Your task to perform on an android device: change your default location settings in chrome Image 0: 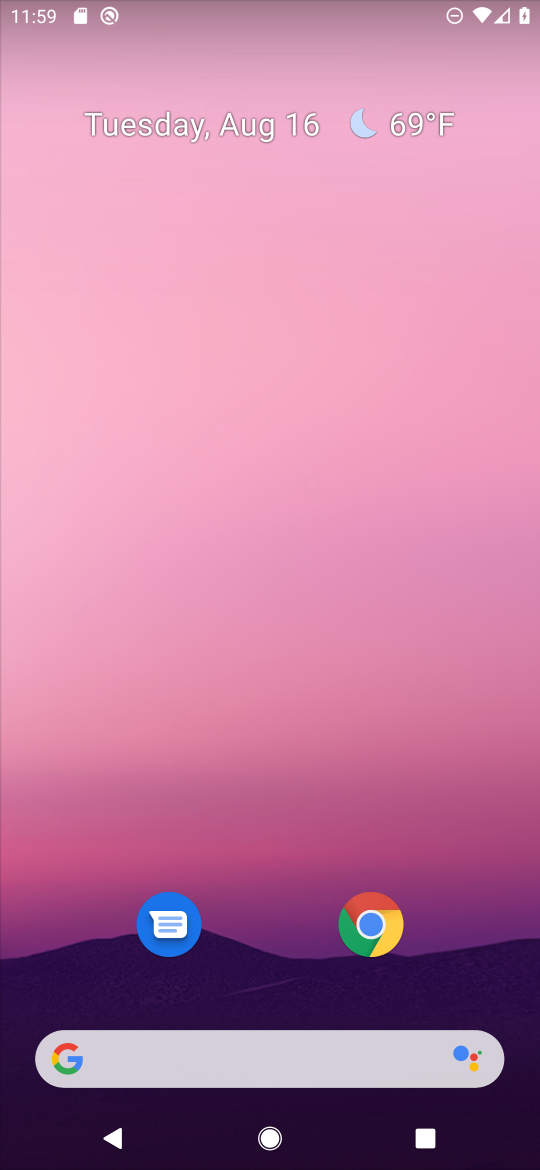
Step 0: click (391, 913)
Your task to perform on an android device: change your default location settings in chrome Image 1: 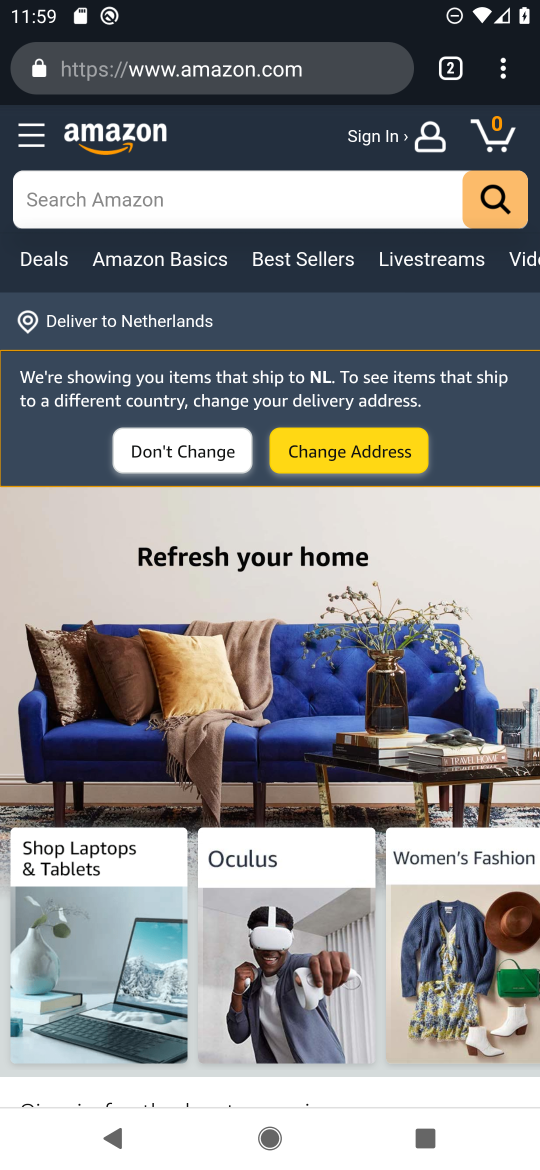
Step 1: click (512, 76)
Your task to perform on an android device: change your default location settings in chrome Image 2: 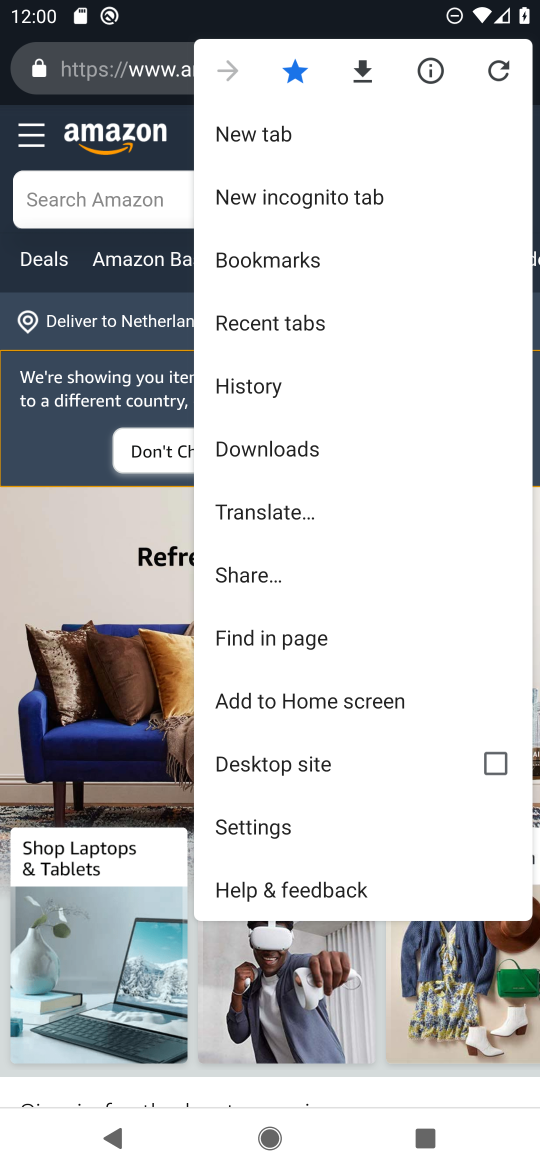
Step 2: click (364, 832)
Your task to perform on an android device: change your default location settings in chrome Image 3: 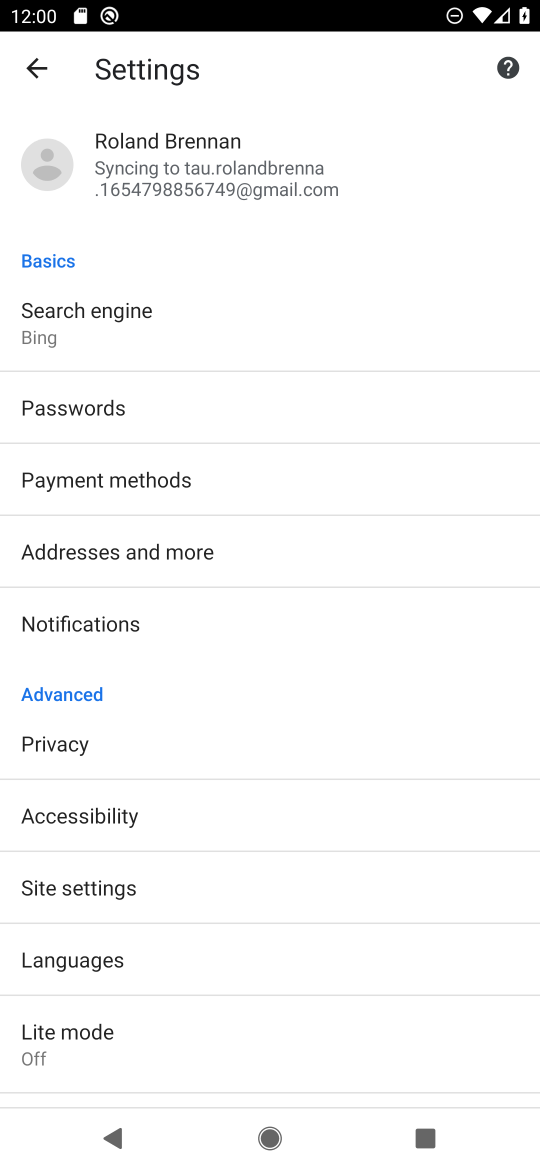
Step 3: drag from (136, 1101) to (214, 447)
Your task to perform on an android device: change your default location settings in chrome Image 4: 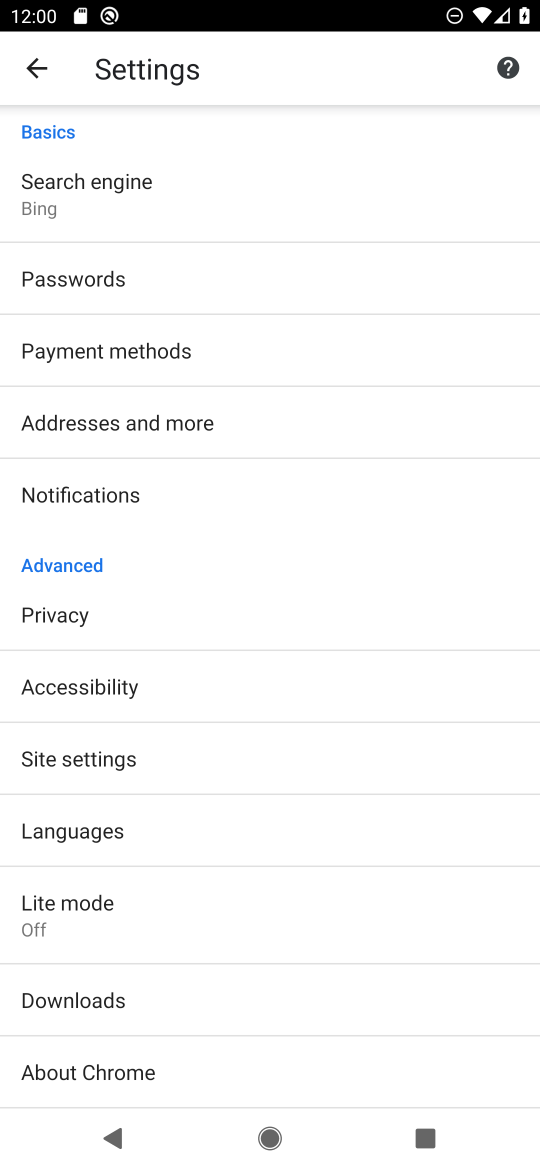
Step 4: drag from (257, 1068) to (273, 523)
Your task to perform on an android device: change your default location settings in chrome Image 5: 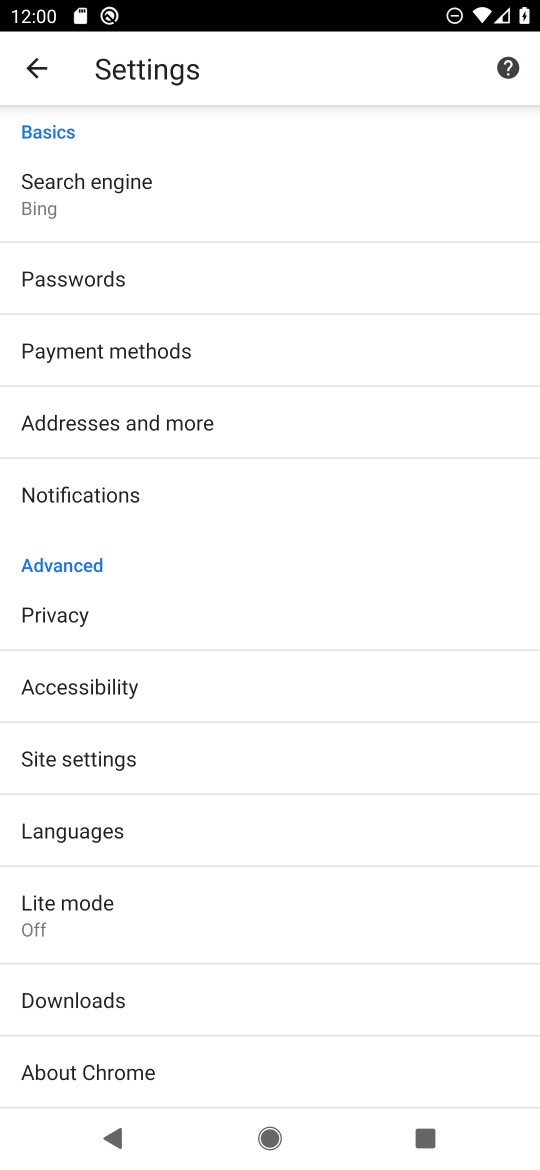
Step 5: click (177, 735)
Your task to perform on an android device: change your default location settings in chrome Image 6: 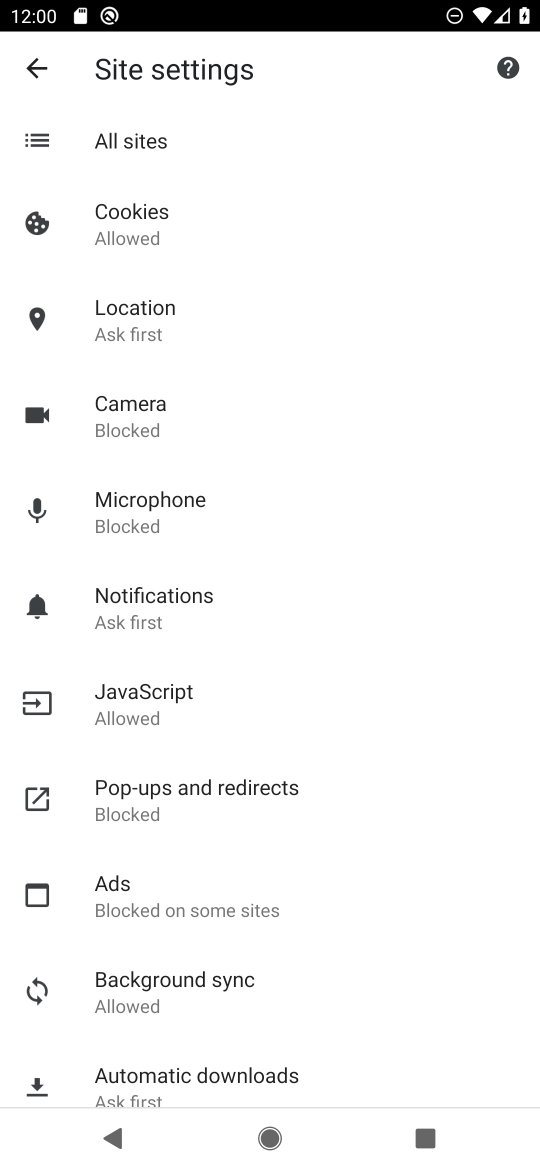
Step 6: click (203, 344)
Your task to perform on an android device: change your default location settings in chrome Image 7: 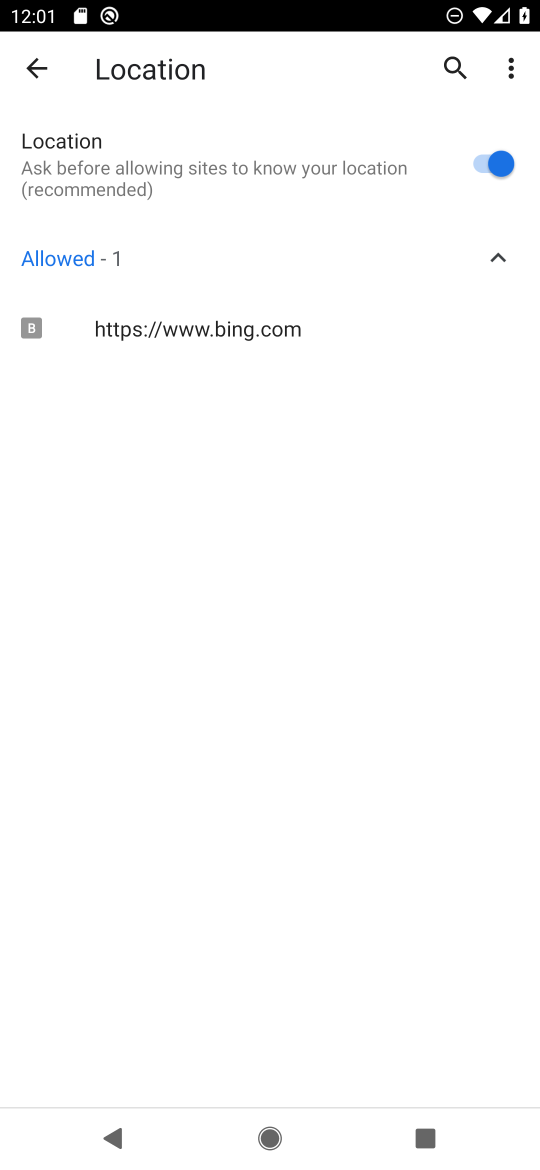
Step 7: click (483, 156)
Your task to perform on an android device: change your default location settings in chrome Image 8: 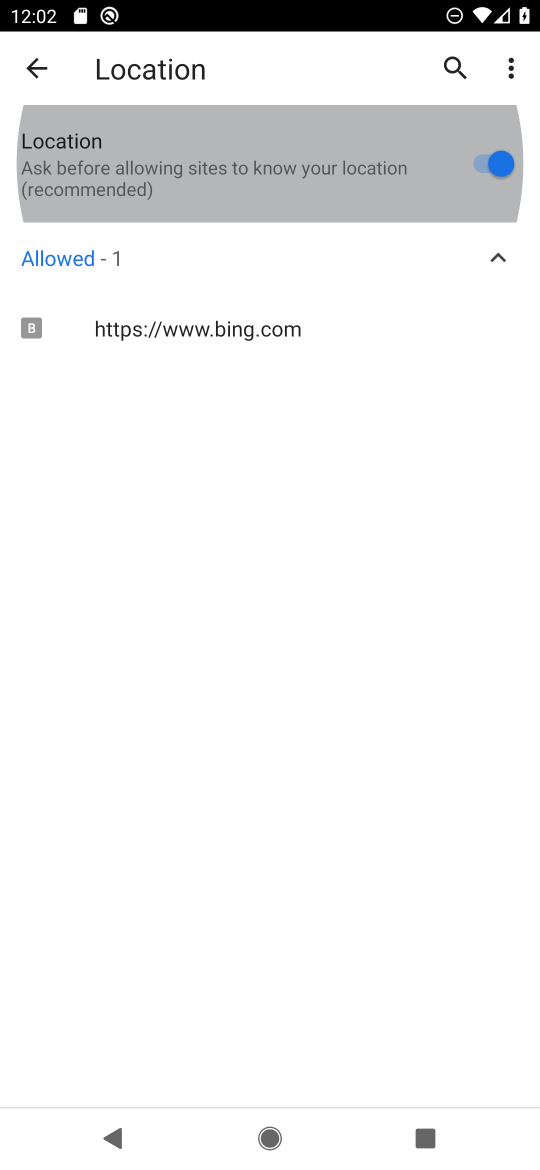
Step 8: click (483, 156)
Your task to perform on an android device: change your default location settings in chrome Image 9: 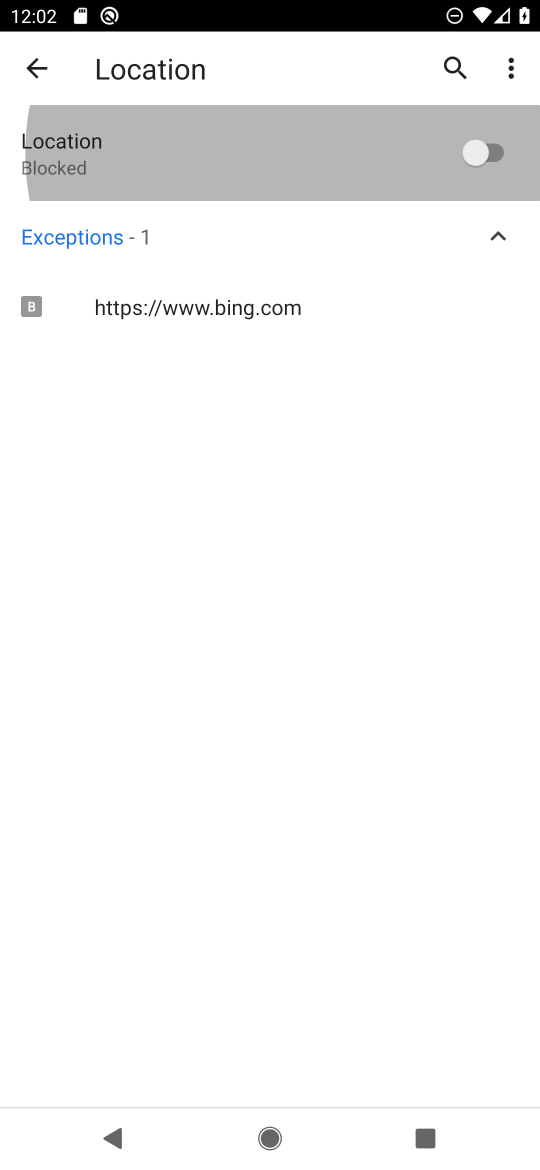
Step 9: click (483, 156)
Your task to perform on an android device: change your default location settings in chrome Image 10: 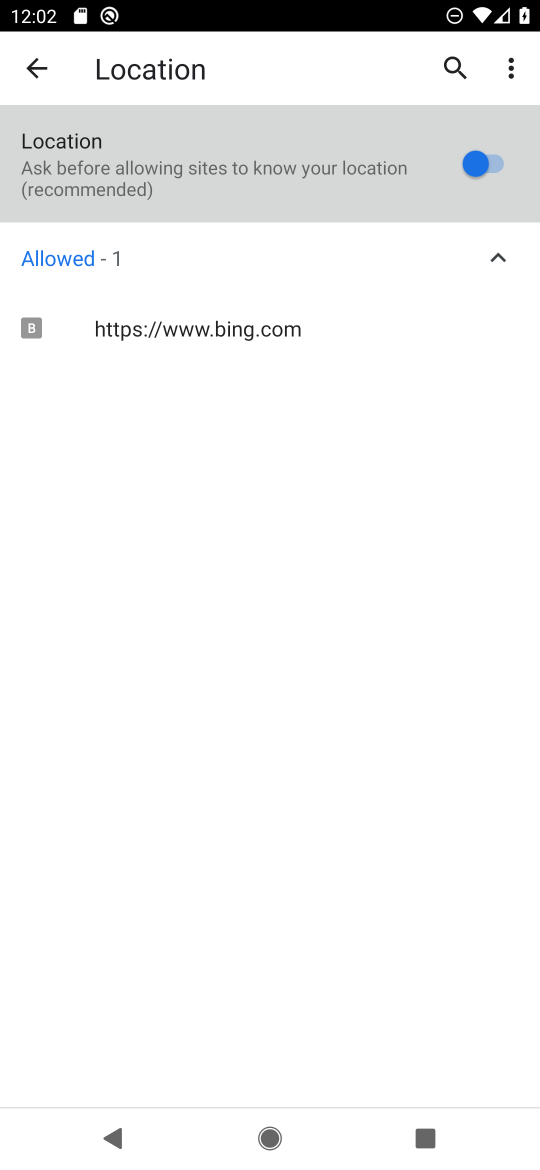
Step 10: click (483, 156)
Your task to perform on an android device: change your default location settings in chrome Image 11: 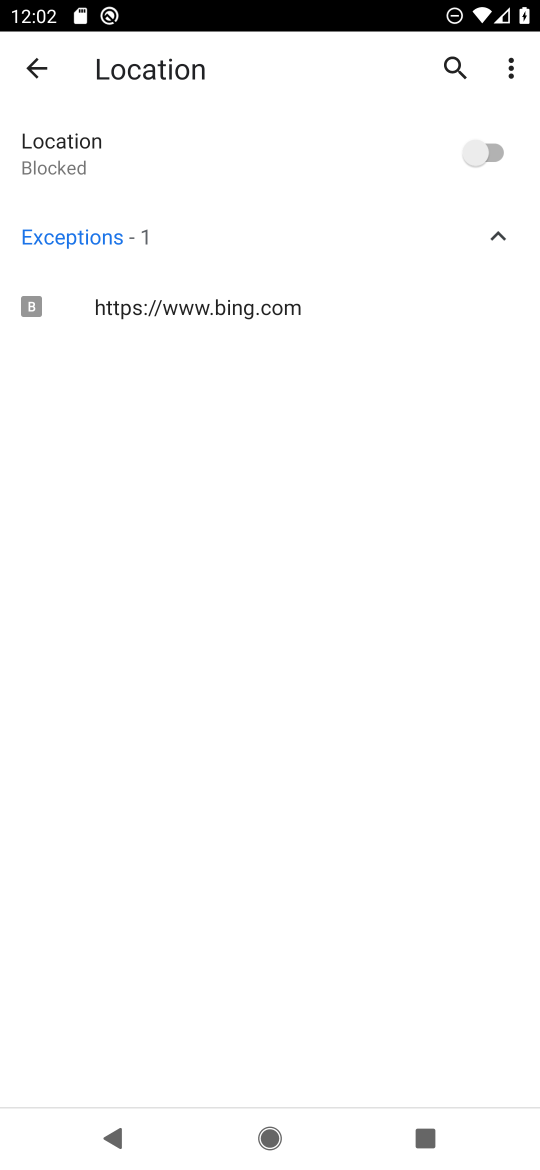
Step 11: click (483, 156)
Your task to perform on an android device: change your default location settings in chrome Image 12: 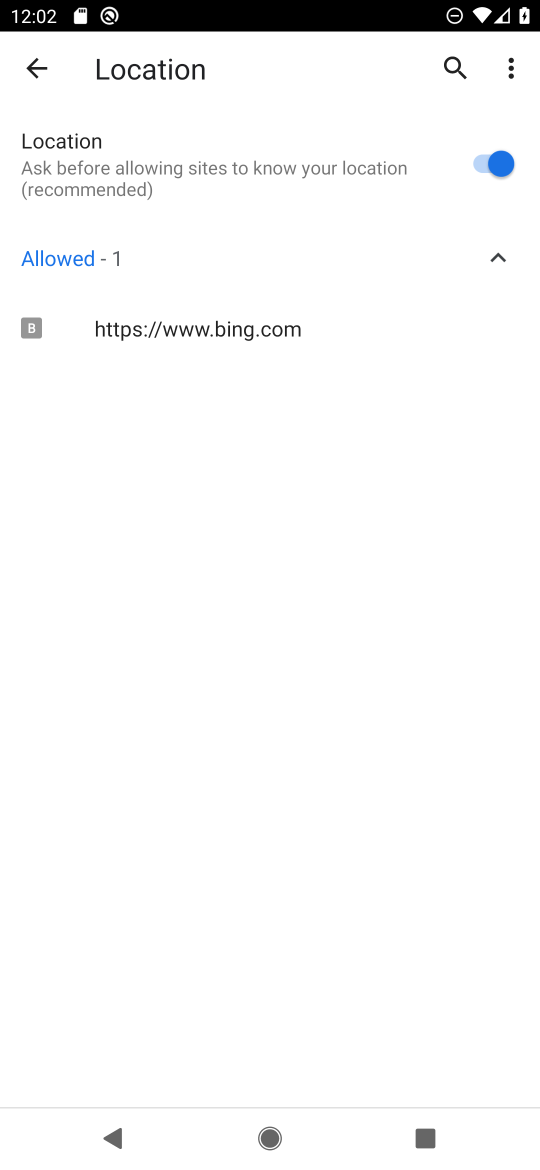
Step 12: task complete